Your task to perform on an android device: What's the news this week? Image 0: 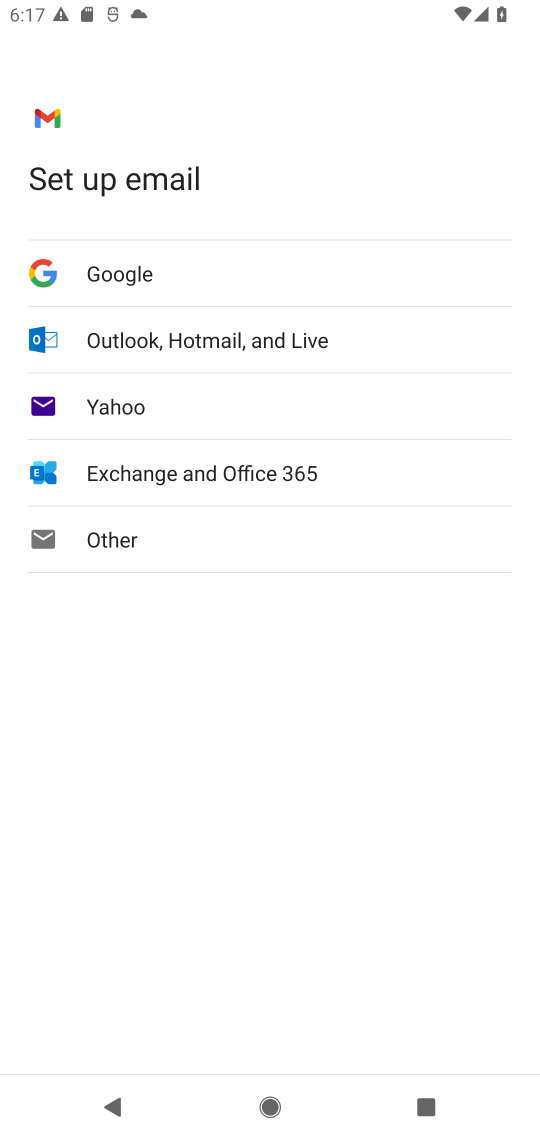
Step 0: press home button
Your task to perform on an android device: What's the news this week? Image 1: 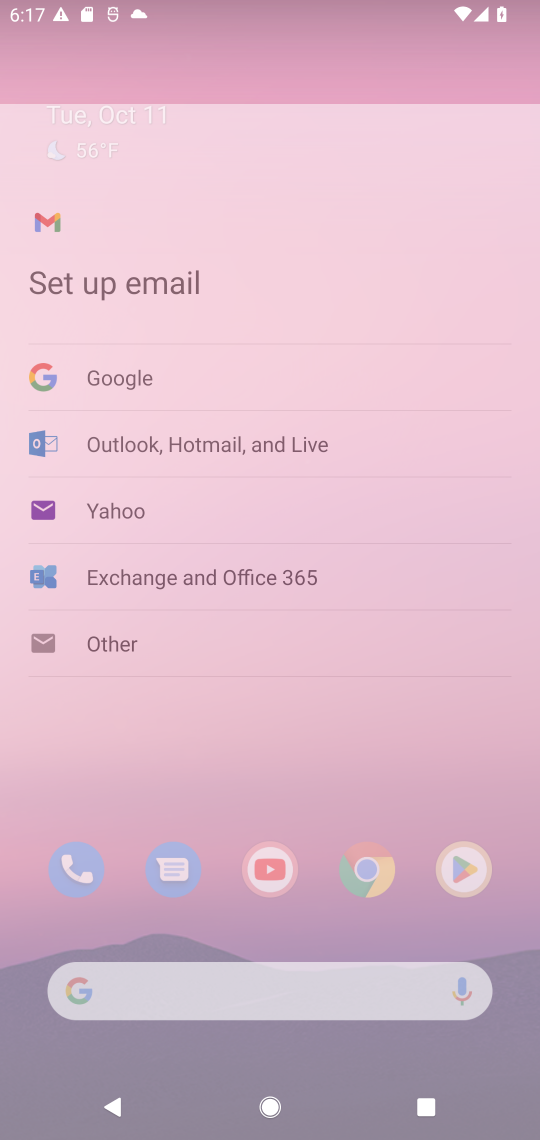
Step 1: press home button
Your task to perform on an android device: What's the news this week? Image 2: 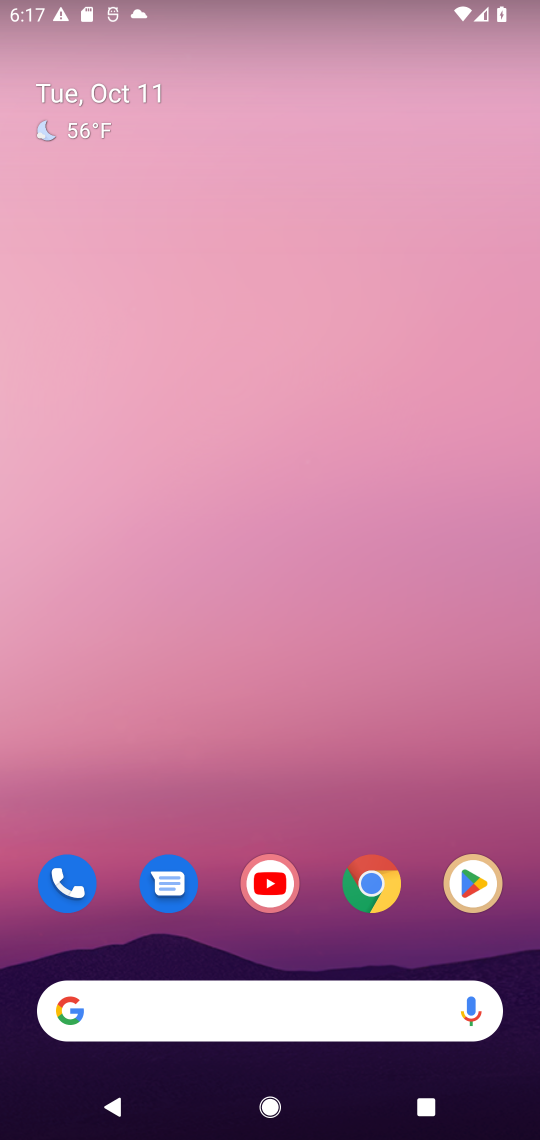
Step 2: click (478, 184)
Your task to perform on an android device: What's the news this week? Image 3: 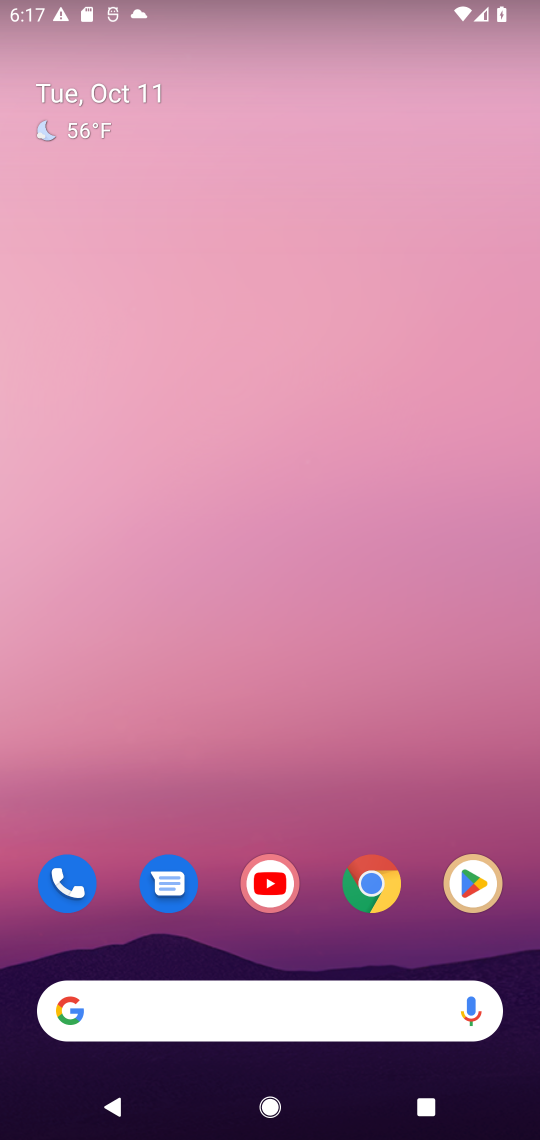
Step 3: drag from (323, 921) to (351, 3)
Your task to perform on an android device: What's the news this week? Image 4: 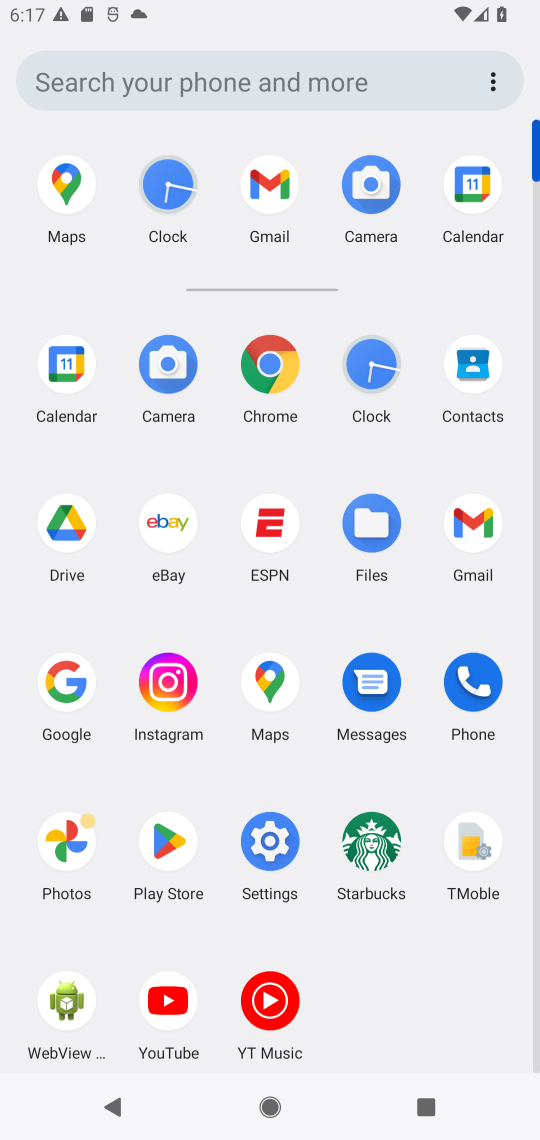
Step 4: click (288, 362)
Your task to perform on an android device: What's the news this week? Image 5: 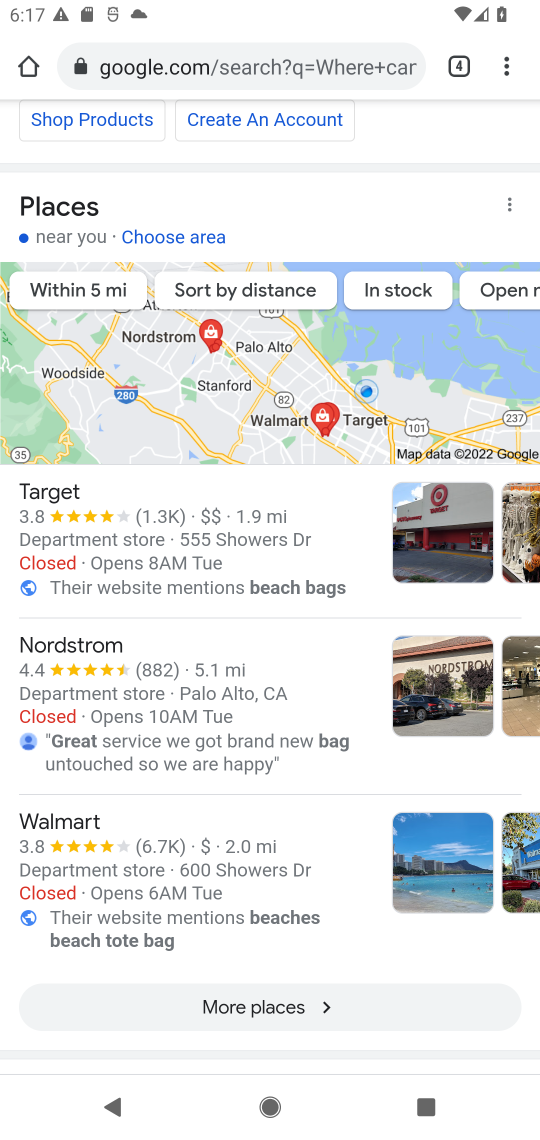
Step 5: click (326, 71)
Your task to perform on an android device: What's the news this week? Image 6: 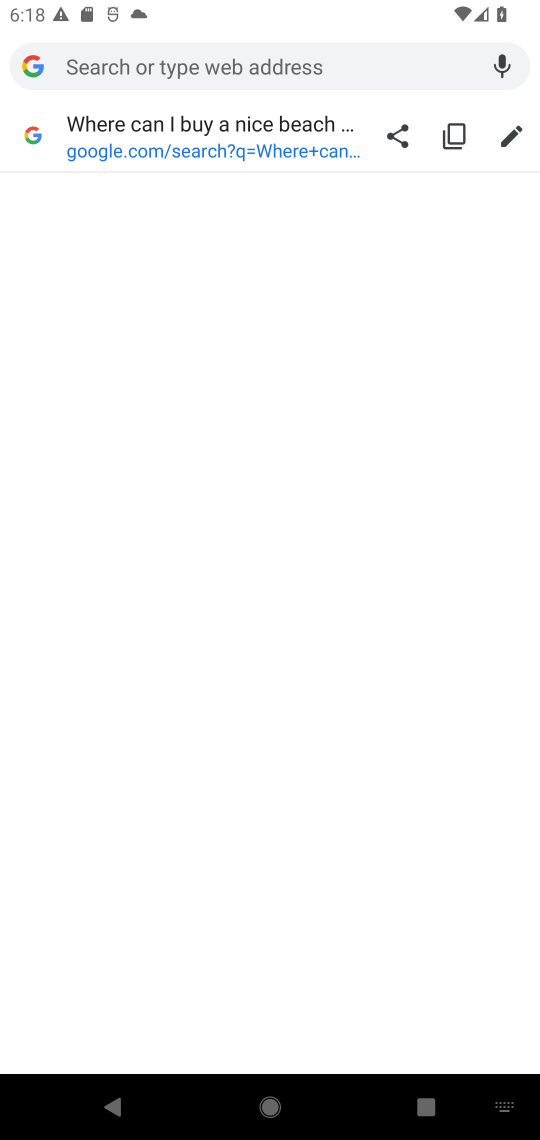
Step 6: type "What's the news this week ?"
Your task to perform on an android device: What's the news this week? Image 7: 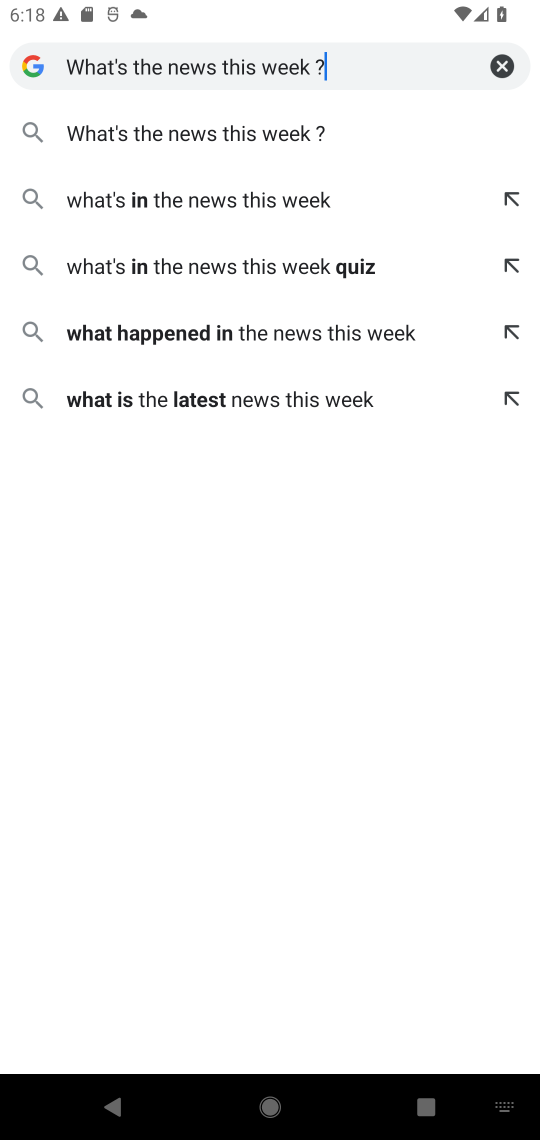
Step 7: press enter
Your task to perform on an android device: What's the news this week? Image 8: 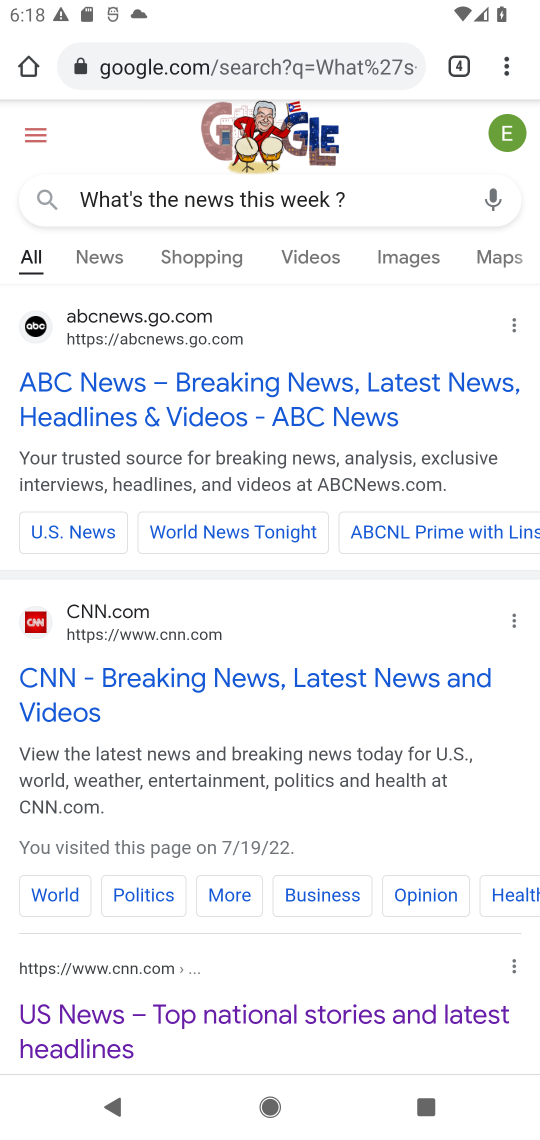
Step 8: click (176, 389)
Your task to perform on an android device: What's the news this week? Image 9: 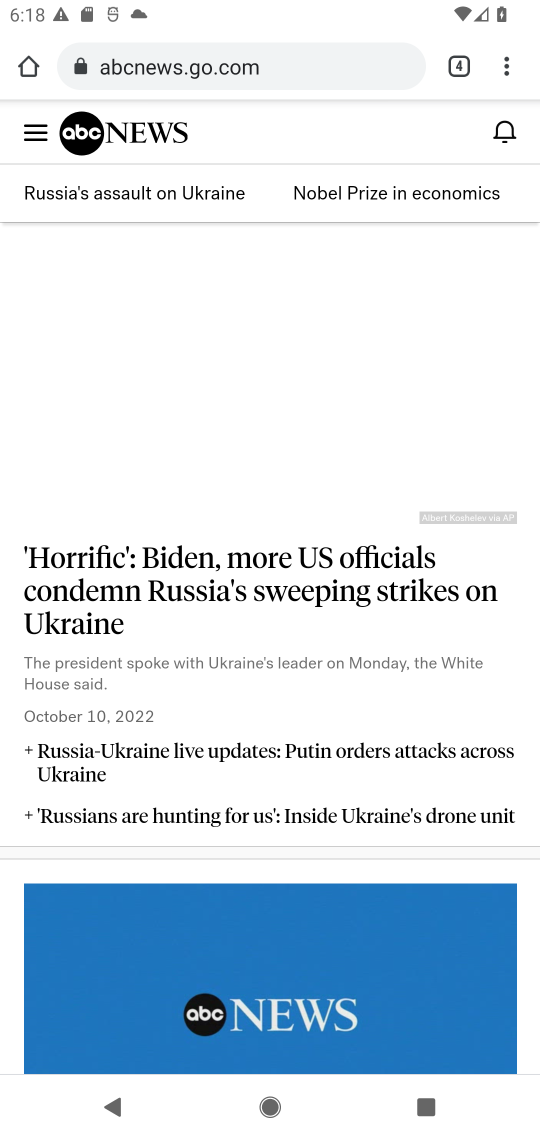
Step 9: task complete